Your task to perform on an android device: Do I have any events tomorrow? Image 0: 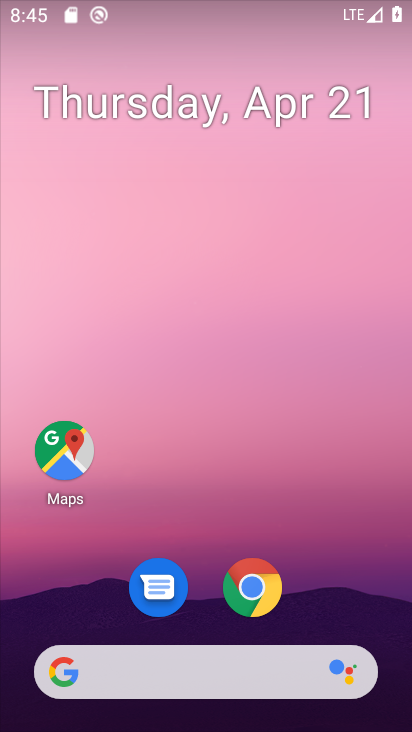
Step 0: drag from (354, 348) to (338, 169)
Your task to perform on an android device: Do I have any events tomorrow? Image 1: 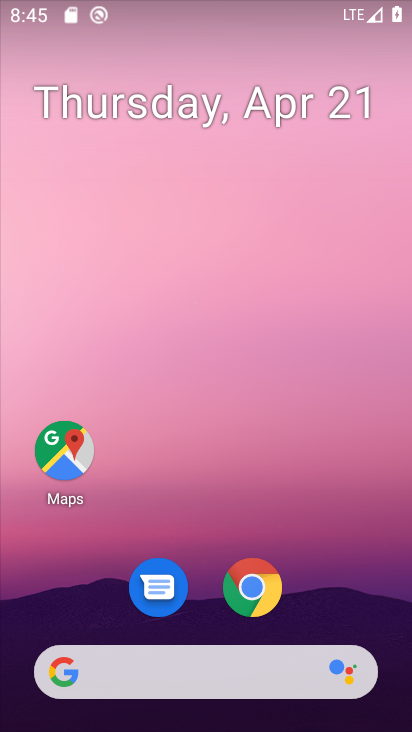
Step 1: drag from (389, 647) to (374, 171)
Your task to perform on an android device: Do I have any events tomorrow? Image 2: 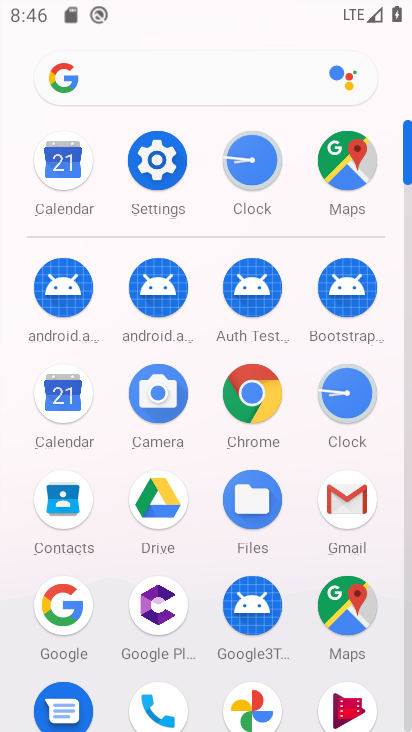
Step 2: click (63, 389)
Your task to perform on an android device: Do I have any events tomorrow? Image 3: 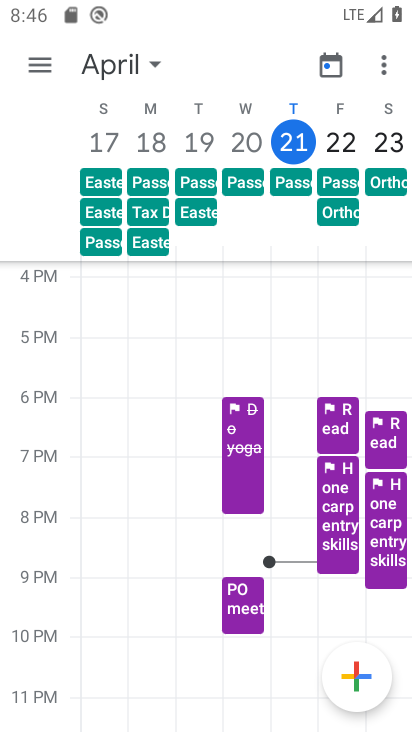
Step 3: click (32, 64)
Your task to perform on an android device: Do I have any events tomorrow? Image 4: 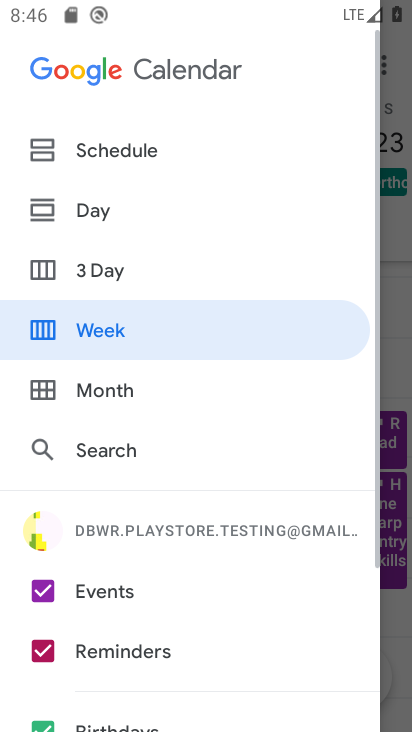
Step 4: click (76, 208)
Your task to perform on an android device: Do I have any events tomorrow? Image 5: 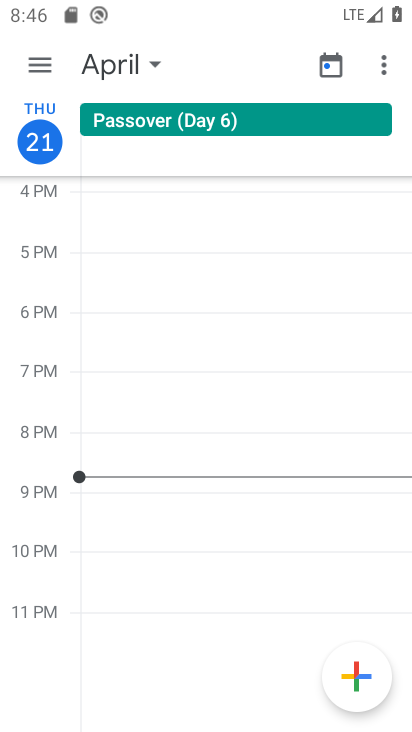
Step 5: click (151, 68)
Your task to perform on an android device: Do I have any events tomorrow? Image 6: 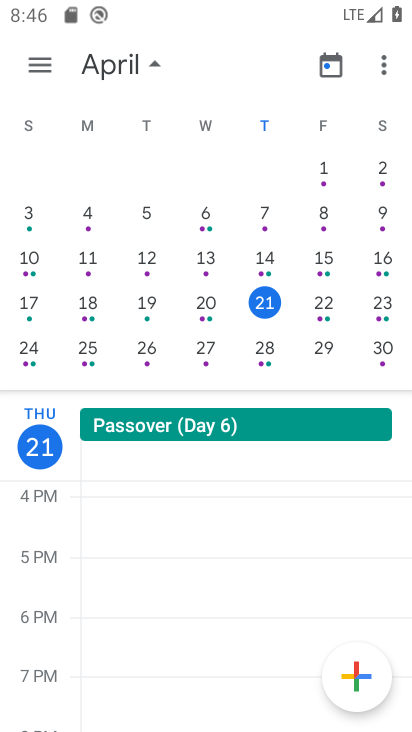
Step 6: click (317, 299)
Your task to perform on an android device: Do I have any events tomorrow? Image 7: 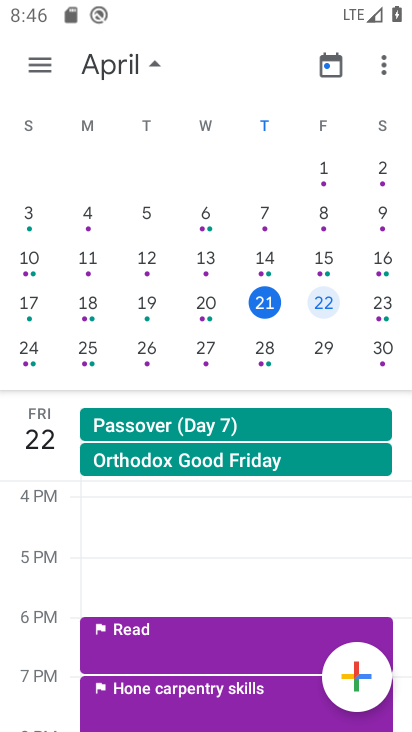
Step 7: task complete